Your task to perform on an android device: Turn on the flashlight Image 0: 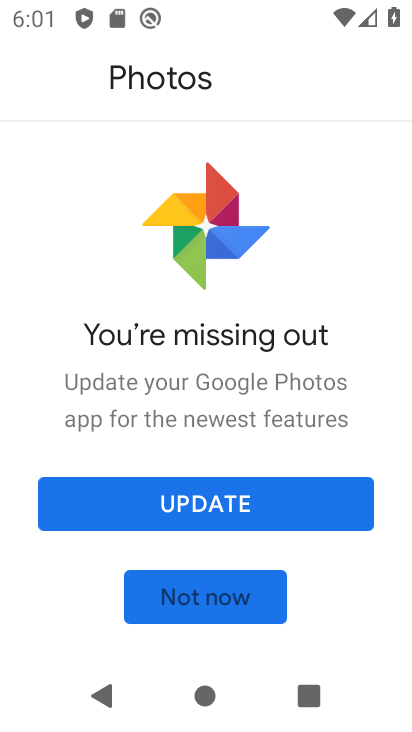
Step 0: drag from (253, 5) to (251, 472)
Your task to perform on an android device: Turn on the flashlight Image 1: 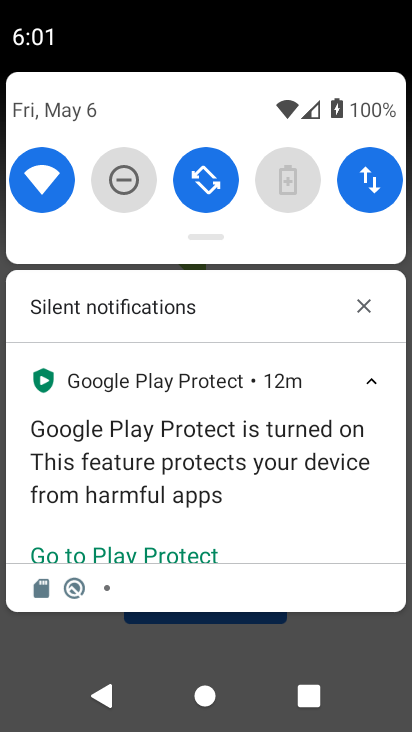
Step 1: task complete